Your task to perform on an android device: Go to Google maps Image 0: 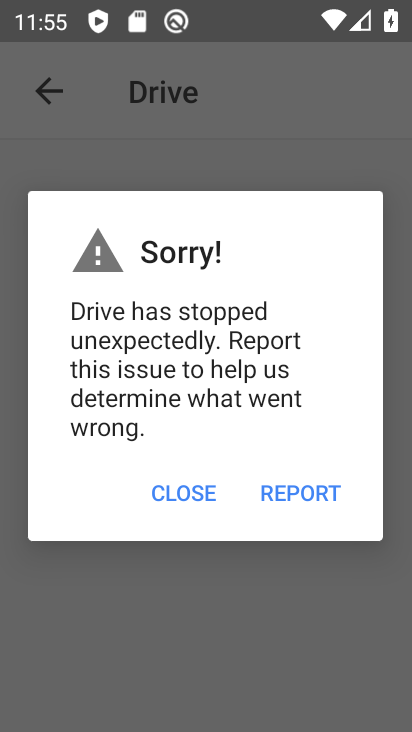
Step 0: press back button
Your task to perform on an android device: Go to Google maps Image 1: 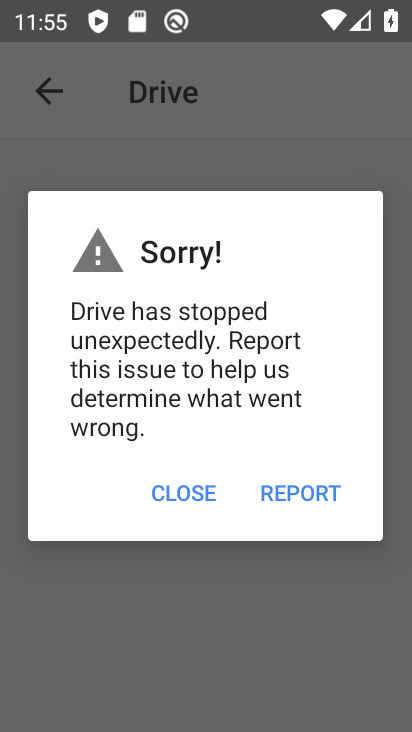
Step 1: press back button
Your task to perform on an android device: Go to Google maps Image 2: 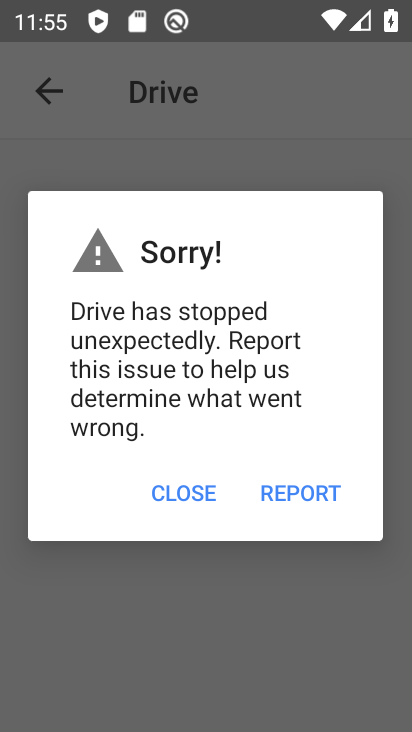
Step 2: press home button
Your task to perform on an android device: Go to Google maps Image 3: 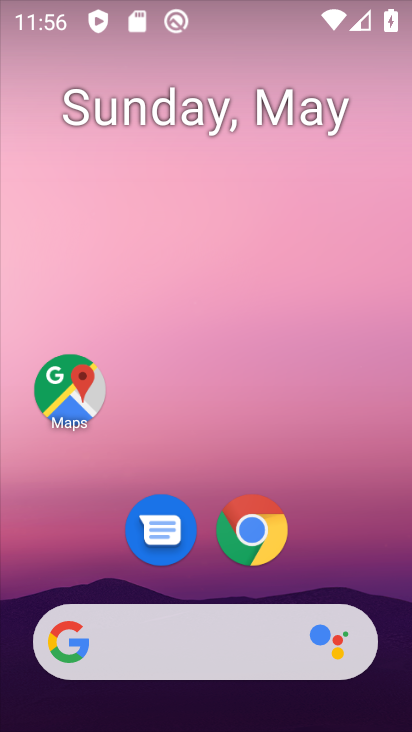
Step 3: click (55, 392)
Your task to perform on an android device: Go to Google maps Image 4: 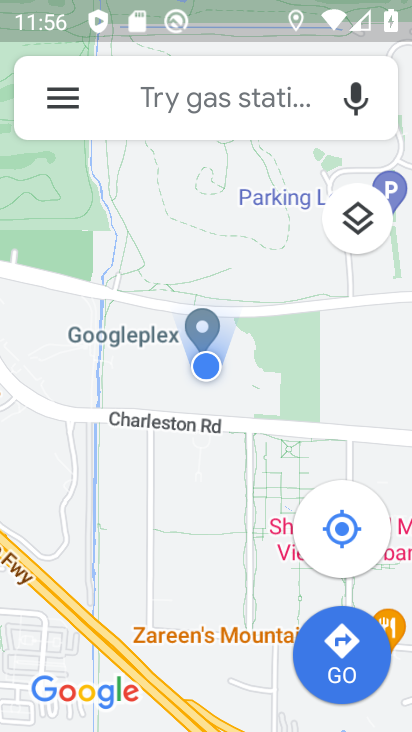
Step 4: task complete